Your task to perform on an android device: open the mobile data screen to see how much data has been used Image 0: 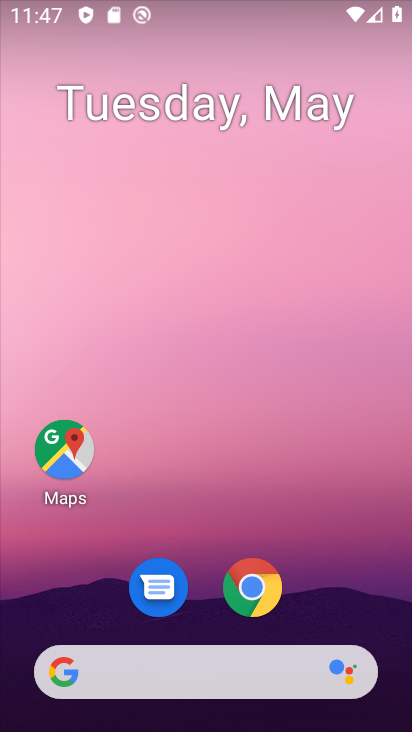
Step 0: drag from (302, 622) to (289, 56)
Your task to perform on an android device: open the mobile data screen to see how much data has been used Image 1: 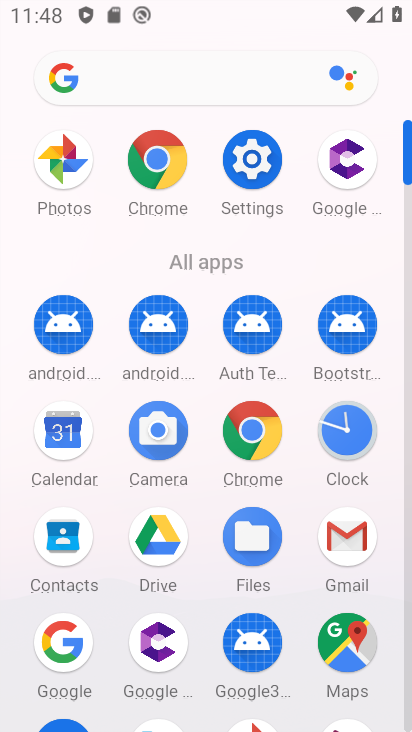
Step 1: click (254, 154)
Your task to perform on an android device: open the mobile data screen to see how much data has been used Image 2: 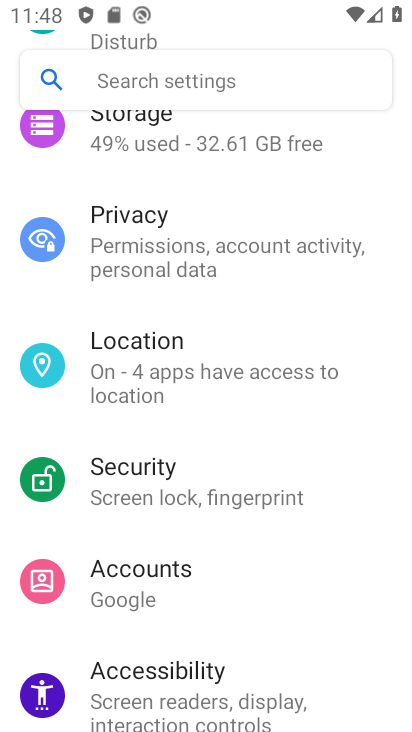
Step 2: drag from (149, 286) to (219, 696)
Your task to perform on an android device: open the mobile data screen to see how much data has been used Image 3: 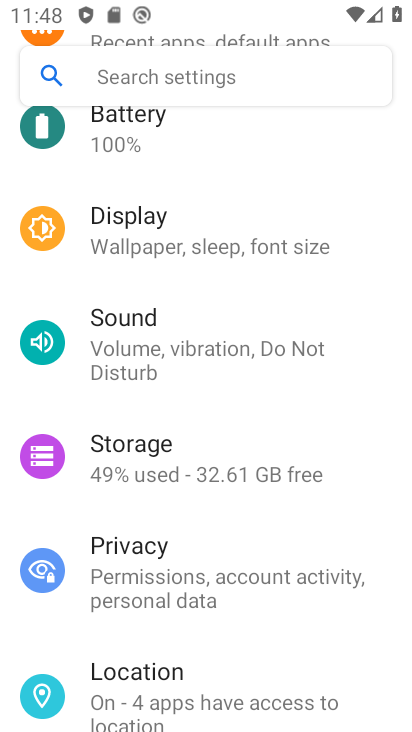
Step 3: drag from (176, 321) to (223, 698)
Your task to perform on an android device: open the mobile data screen to see how much data has been used Image 4: 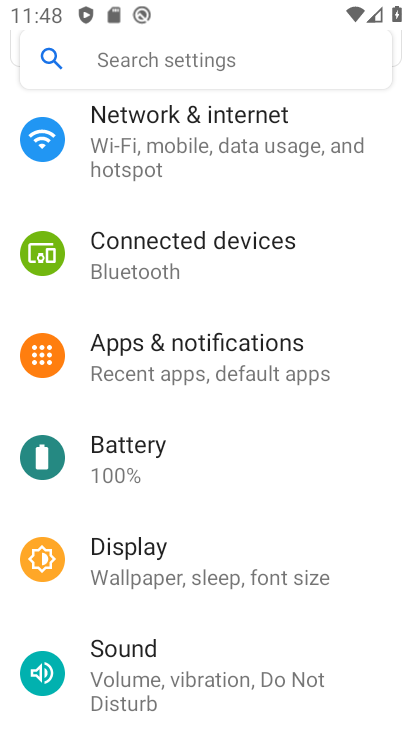
Step 4: click (265, 151)
Your task to perform on an android device: open the mobile data screen to see how much data has been used Image 5: 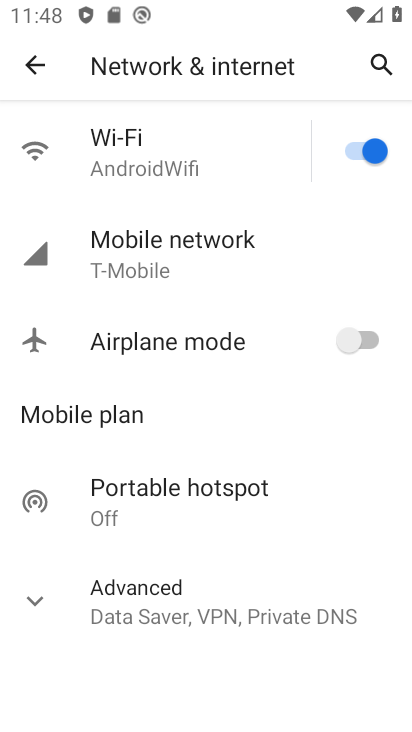
Step 5: click (180, 234)
Your task to perform on an android device: open the mobile data screen to see how much data has been used Image 6: 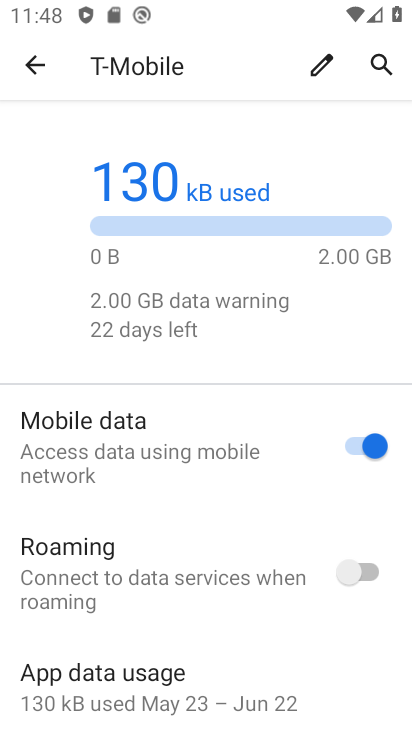
Step 6: click (147, 664)
Your task to perform on an android device: open the mobile data screen to see how much data has been used Image 7: 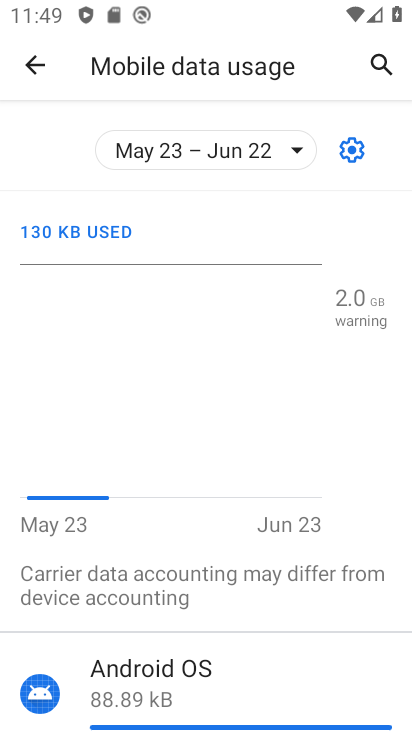
Step 7: task complete